Your task to perform on an android device: Open calendar and show me the second week of next month Image 0: 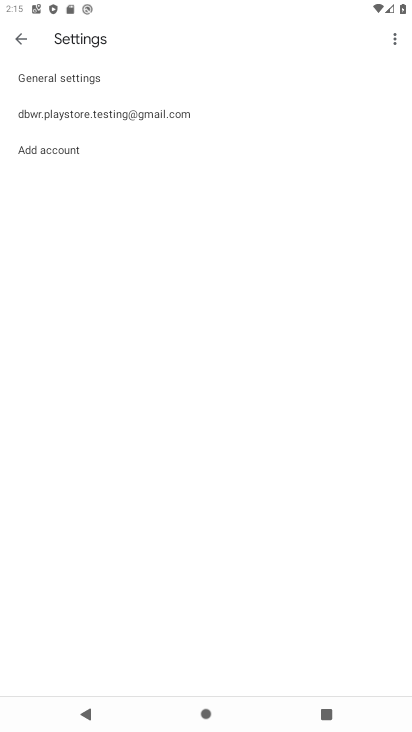
Step 0: press home button
Your task to perform on an android device: Open calendar and show me the second week of next month Image 1: 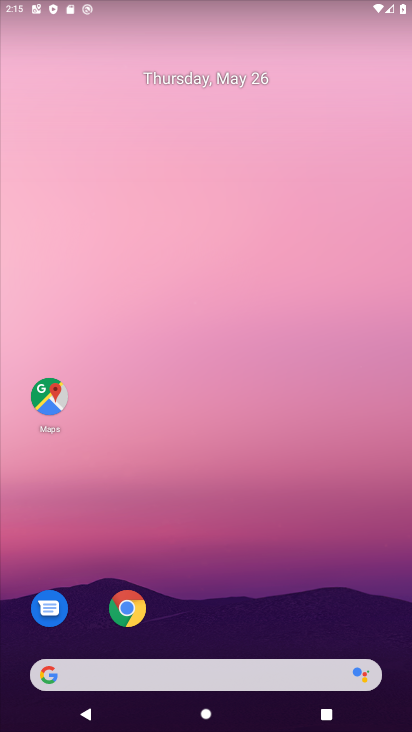
Step 1: drag from (289, 591) to (306, 91)
Your task to perform on an android device: Open calendar and show me the second week of next month Image 2: 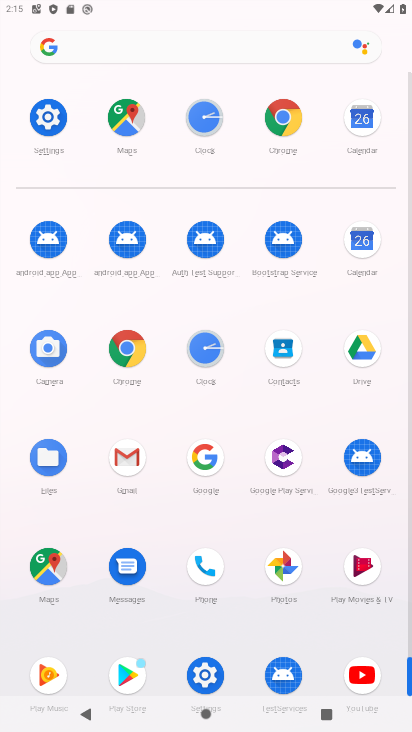
Step 2: click (360, 234)
Your task to perform on an android device: Open calendar and show me the second week of next month Image 3: 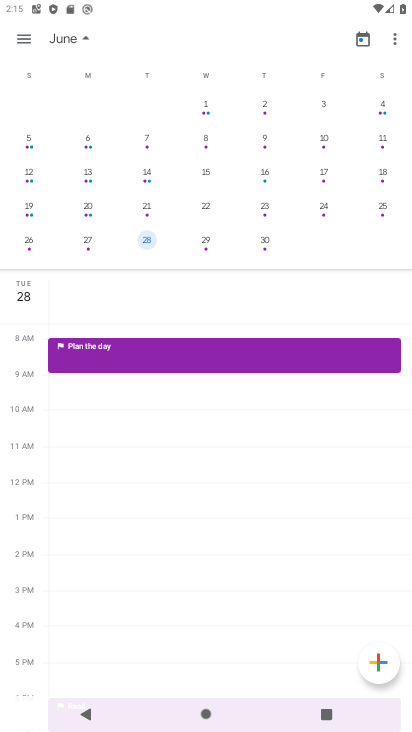
Step 3: task complete